Your task to perform on an android device: refresh tabs in the chrome app Image 0: 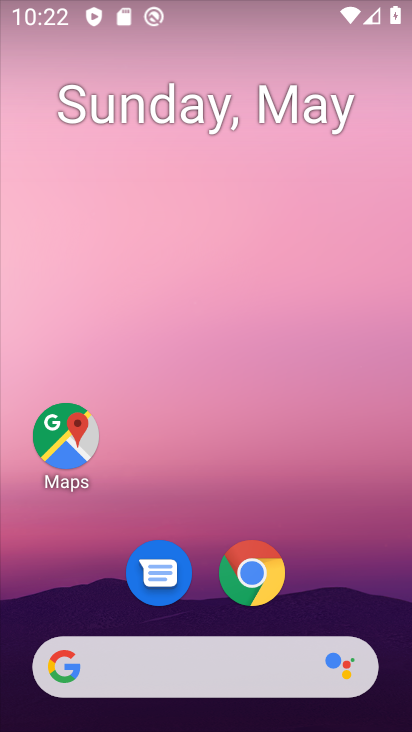
Step 0: click (253, 577)
Your task to perform on an android device: refresh tabs in the chrome app Image 1: 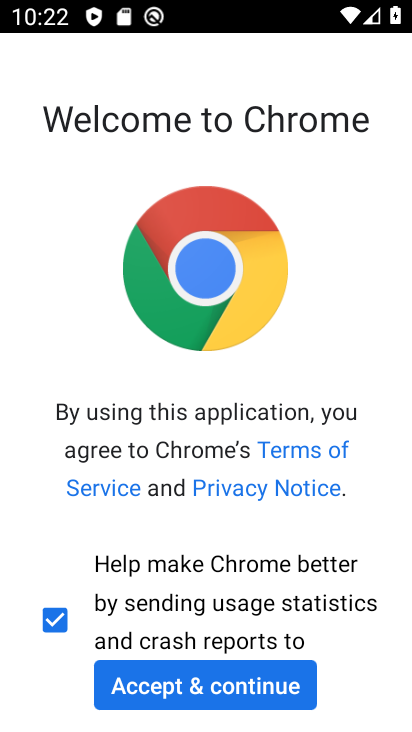
Step 1: click (267, 681)
Your task to perform on an android device: refresh tabs in the chrome app Image 2: 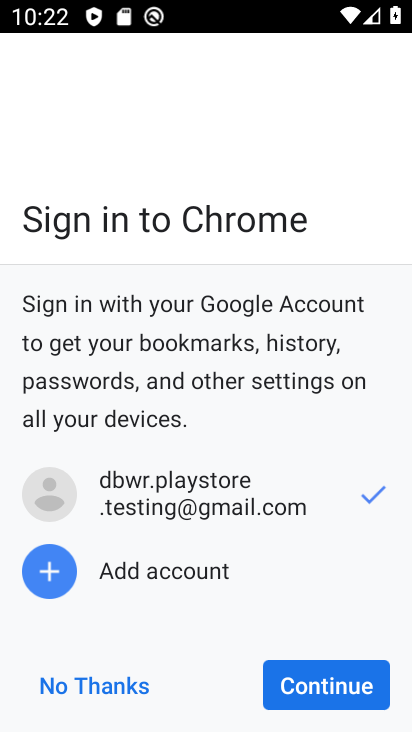
Step 2: click (344, 688)
Your task to perform on an android device: refresh tabs in the chrome app Image 3: 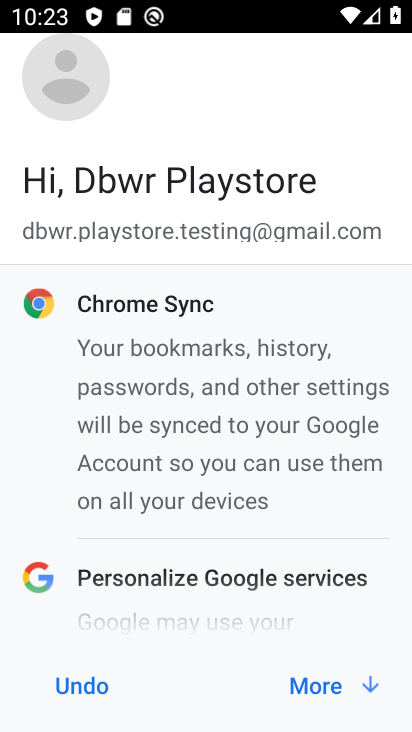
Step 3: click (344, 688)
Your task to perform on an android device: refresh tabs in the chrome app Image 4: 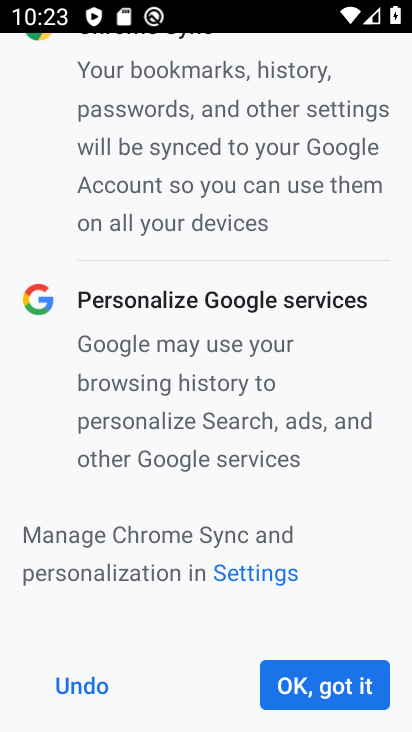
Step 4: click (344, 688)
Your task to perform on an android device: refresh tabs in the chrome app Image 5: 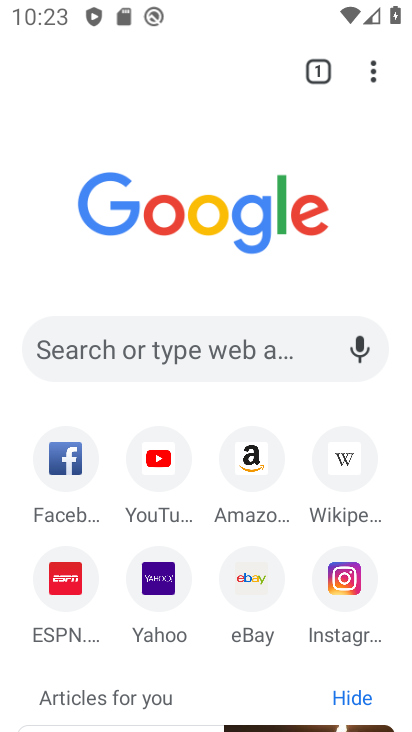
Step 5: click (381, 84)
Your task to perform on an android device: refresh tabs in the chrome app Image 6: 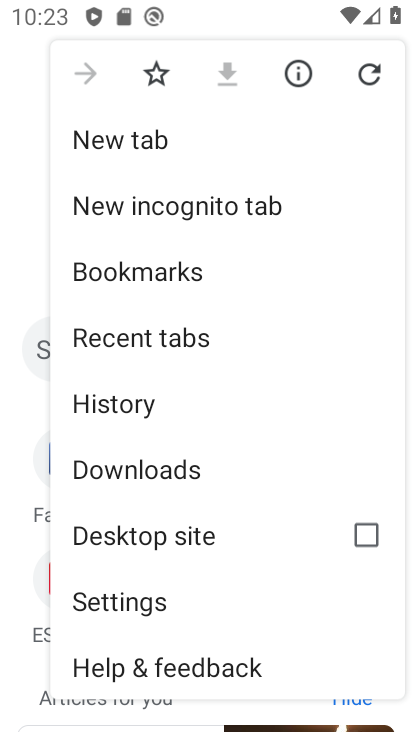
Step 6: click (373, 82)
Your task to perform on an android device: refresh tabs in the chrome app Image 7: 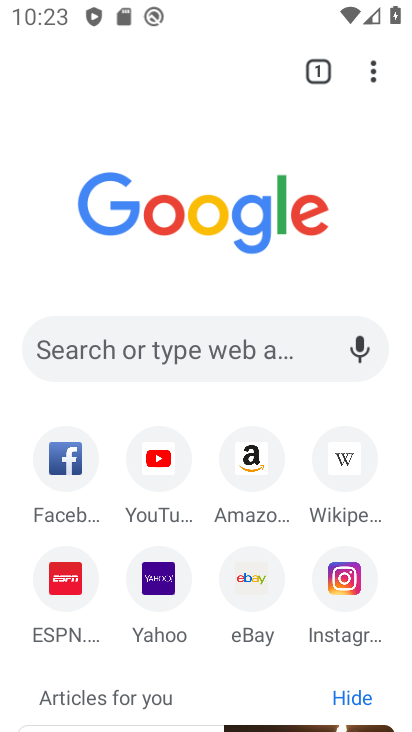
Step 7: task complete